Your task to perform on an android device: Open Google Chrome and click the shortcut for Amazon.com Image 0: 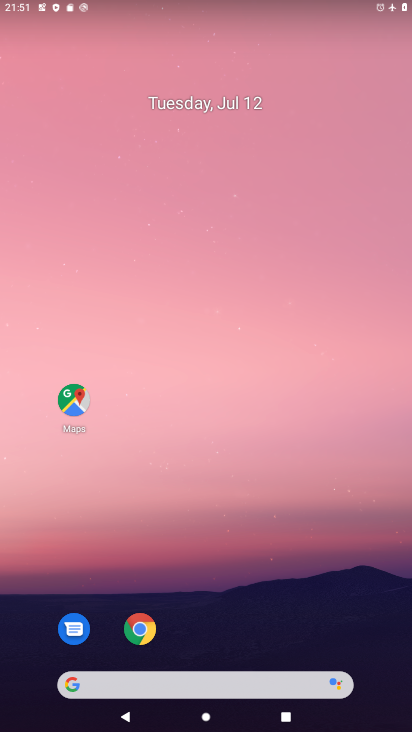
Step 0: drag from (266, 561) to (279, 183)
Your task to perform on an android device: Open Google Chrome and click the shortcut for Amazon.com Image 1: 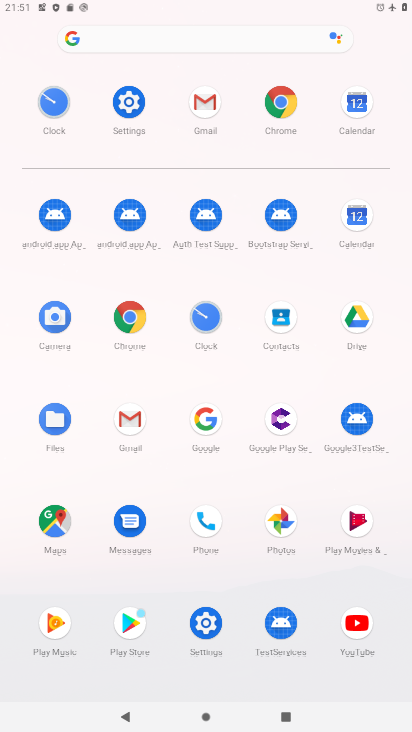
Step 1: click (272, 104)
Your task to perform on an android device: Open Google Chrome and click the shortcut for Amazon.com Image 2: 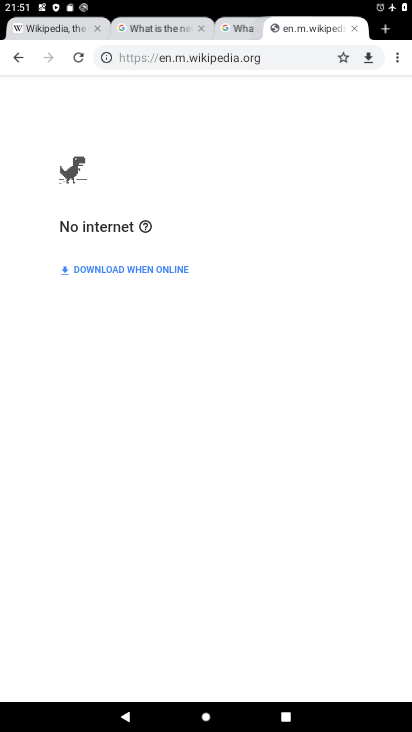
Step 2: click (385, 28)
Your task to perform on an android device: Open Google Chrome and click the shortcut for Amazon.com Image 3: 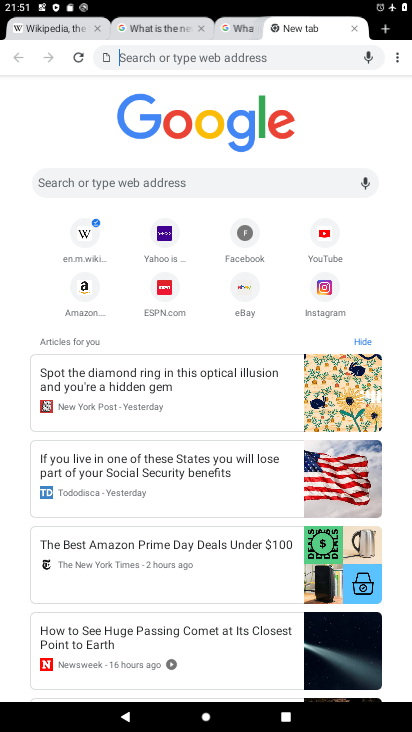
Step 3: click (88, 287)
Your task to perform on an android device: Open Google Chrome and click the shortcut for Amazon.com Image 4: 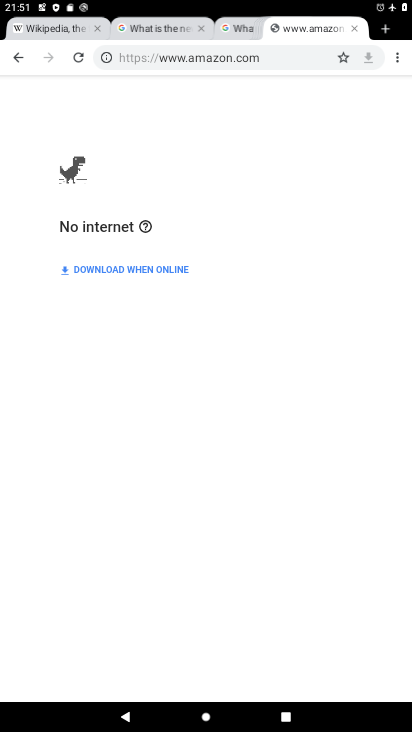
Step 4: task complete